Your task to perform on an android device: star an email in the gmail app Image 0: 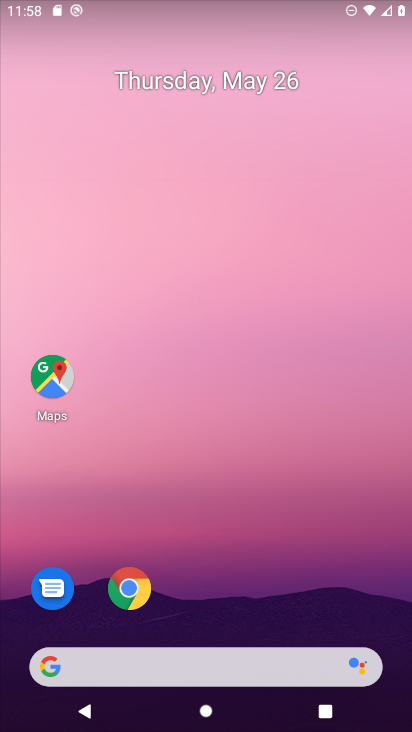
Step 0: press home button
Your task to perform on an android device: star an email in the gmail app Image 1: 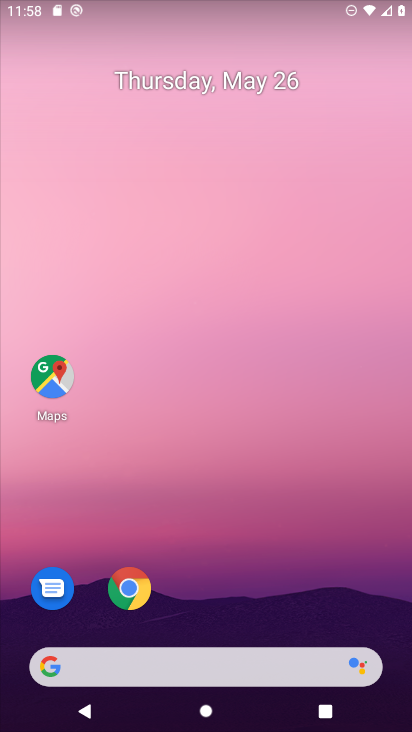
Step 1: drag from (402, 608) to (341, 50)
Your task to perform on an android device: star an email in the gmail app Image 2: 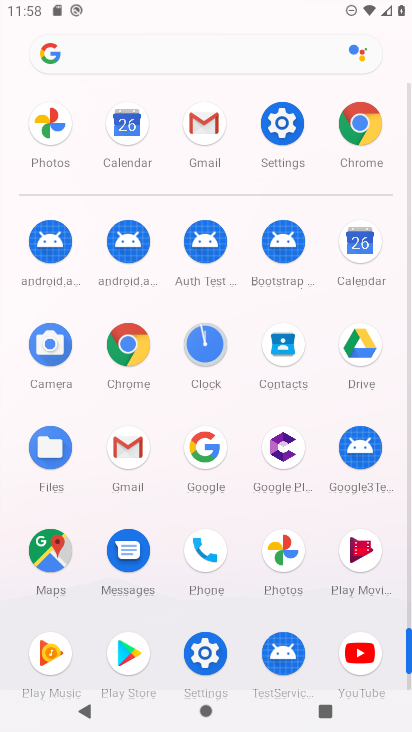
Step 2: click (127, 450)
Your task to perform on an android device: star an email in the gmail app Image 3: 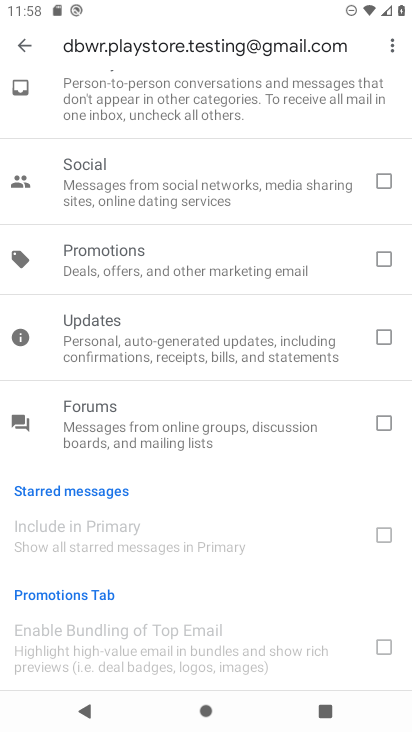
Step 3: press back button
Your task to perform on an android device: star an email in the gmail app Image 4: 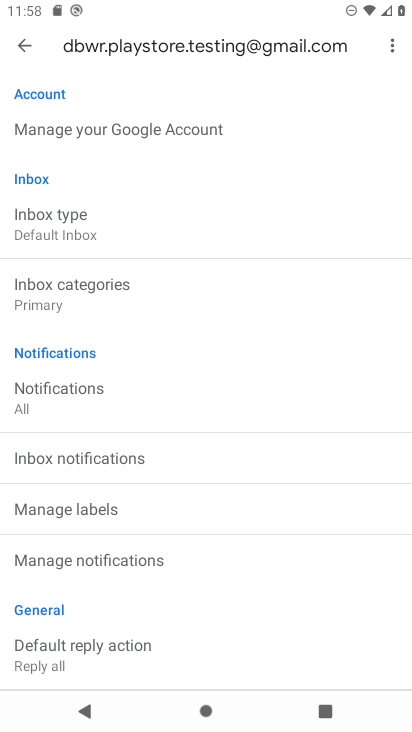
Step 4: press back button
Your task to perform on an android device: star an email in the gmail app Image 5: 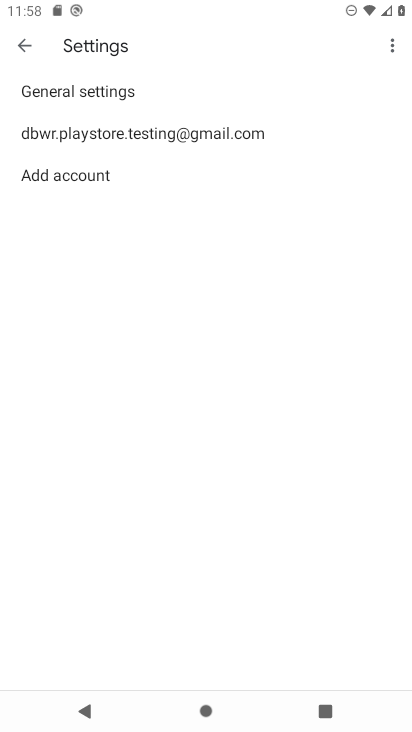
Step 5: press back button
Your task to perform on an android device: star an email in the gmail app Image 6: 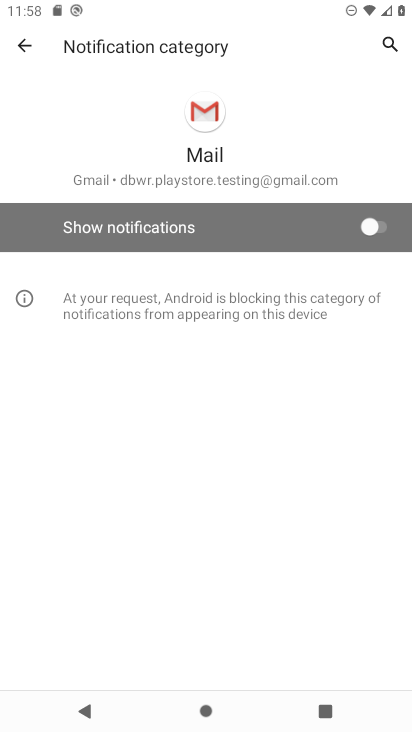
Step 6: press back button
Your task to perform on an android device: star an email in the gmail app Image 7: 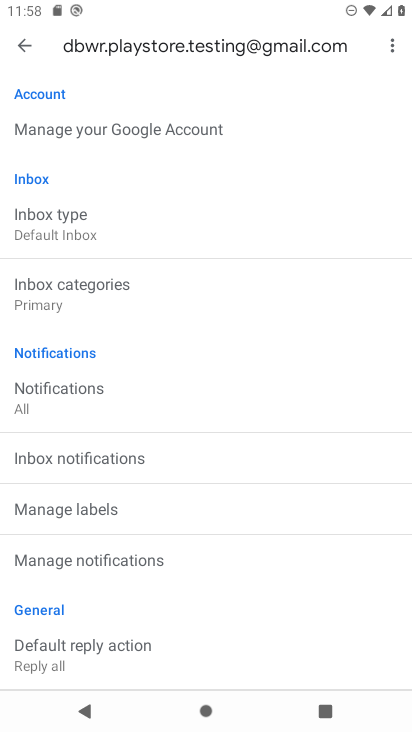
Step 7: press back button
Your task to perform on an android device: star an email in the gmail app Image 8: 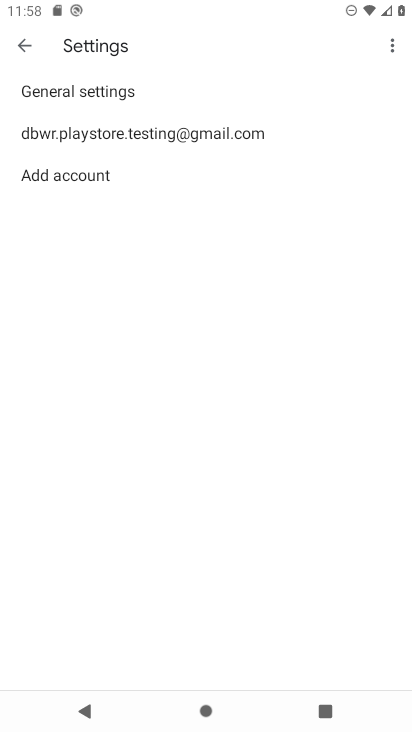
Step 8: press back button
Your task to perform on an android device: star an email in the gmail app Image 9: 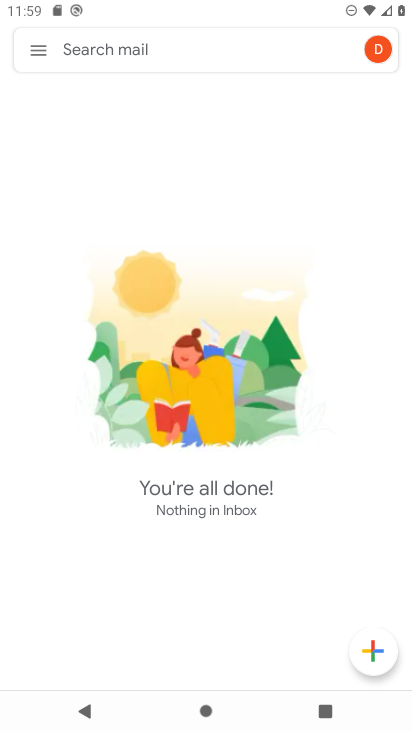
Step 9: click (37, 45)
Your task to perform on an android device: star an email in the gmail app Image 10: 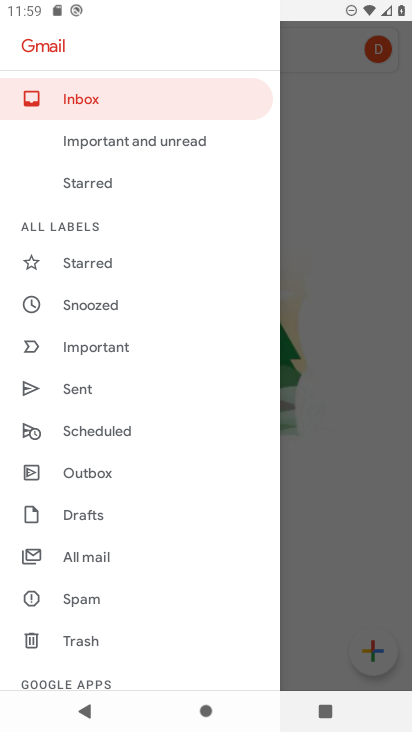
Step 10: click (88, 554)
Your task to perform on an android device: star an email in the gmail app Image 11: 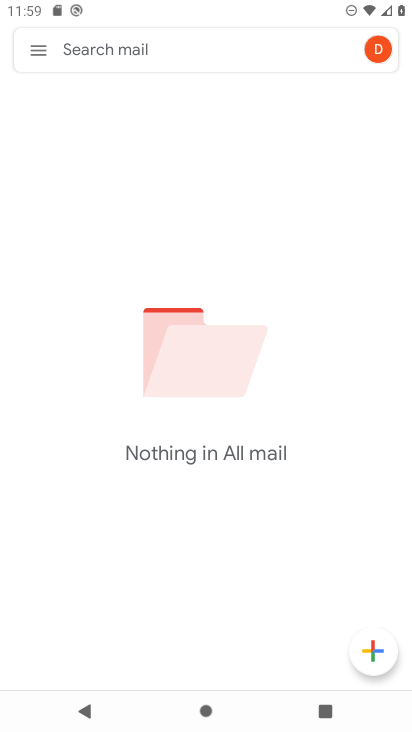
Step 11: task complete